Your task to perform on an android device: turn off notifications in google photos Image 0: 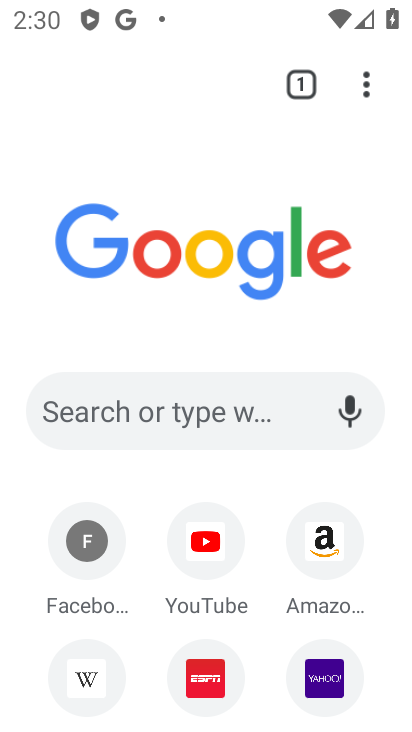
Step 0: press back button
Your task to perform on an android device: turn off notifications in google photos Image 1: 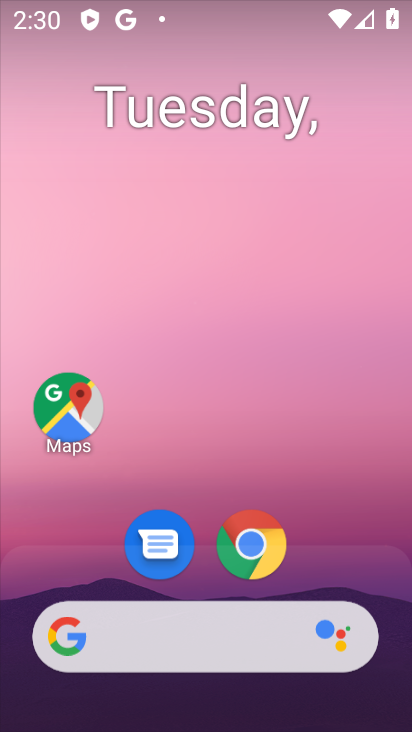
Step 1: drag from (190, 500) to (303, 8)
Your task to perform on an android device: turn off notifications in google photos Image 2: 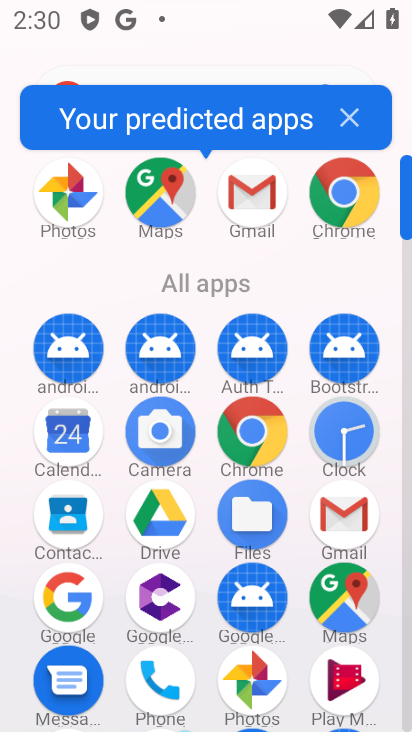
Step 2: click (250, 678)
Your task to perform on an android device: turn off notifications in google photos Image 3: 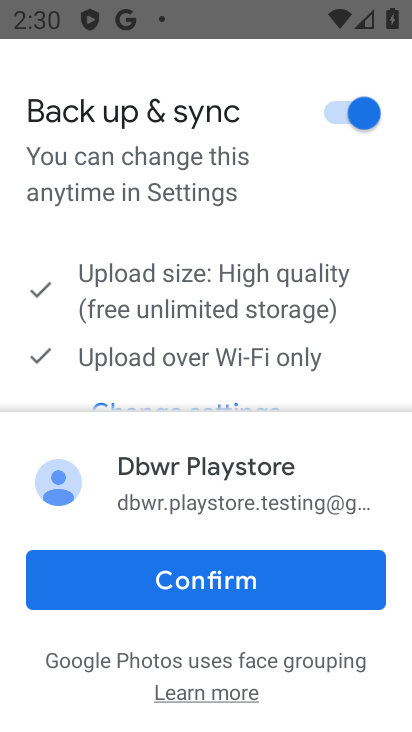
Step 3: click (220, 566)
Your task to perform on an android device: turn off notifications in google photos Image 4: 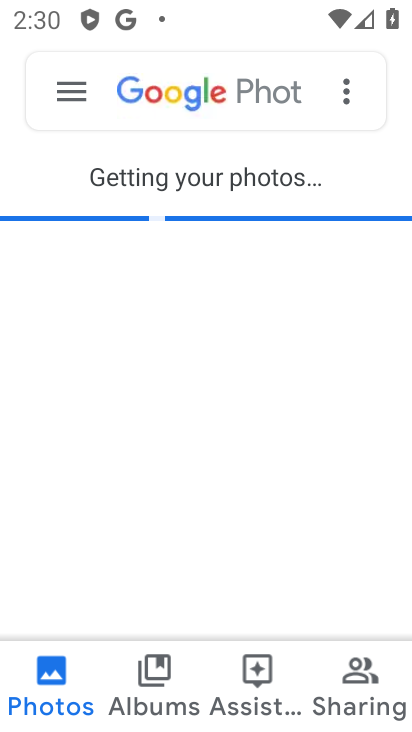
Step 4: click (59, 78)
Your task to perform on an android device: turn off notifications in google photos Image 5: 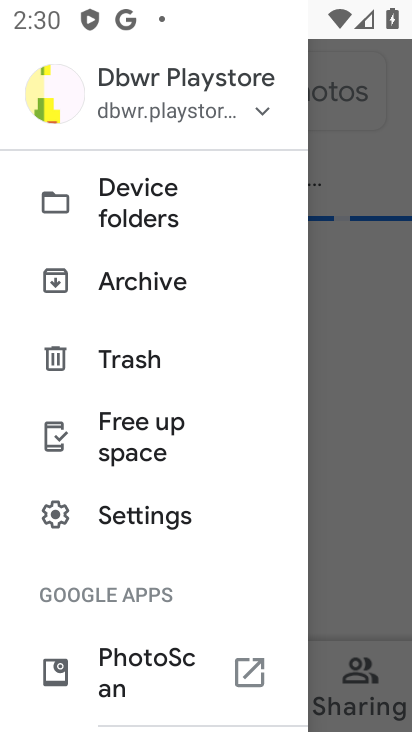
Step 5: click (126, 525)
Your task to perform on an android device: turn off notifications in google photos Image 6: 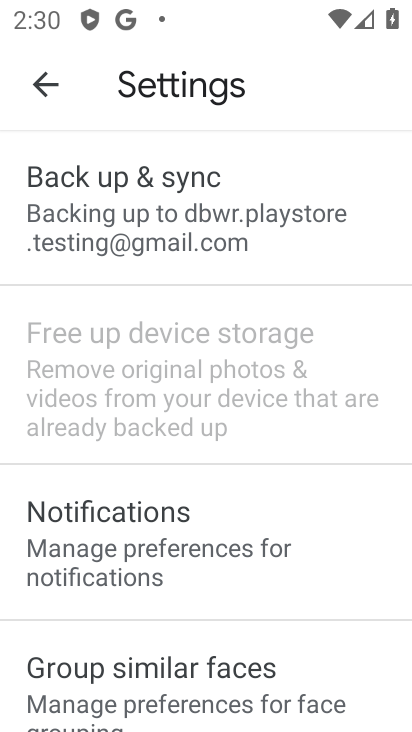
Step 6: click (117, 536)
Your task to perform on an android device: turn off notifications in google photos Image 7: 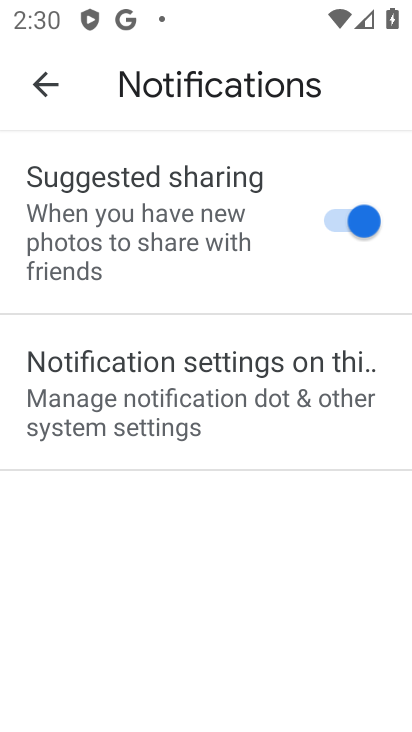
Step 7: click (178, 365)
Your task to perform on an android device: turn off notifications in google photos Image 8: 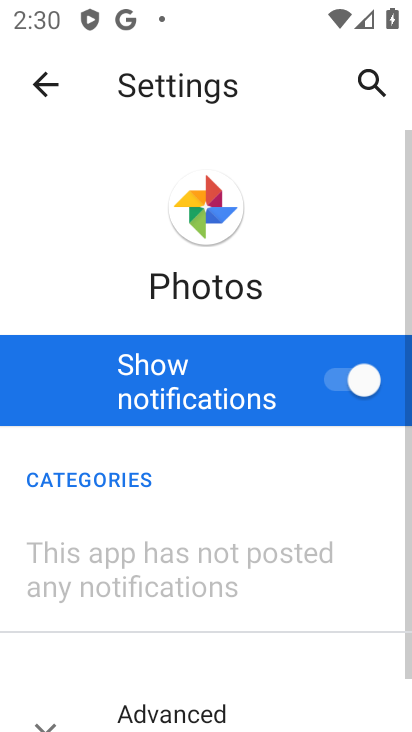
Step 8: click (352, 382)
Your task to perform on an android device: turn off notifications in google photos Image 9: 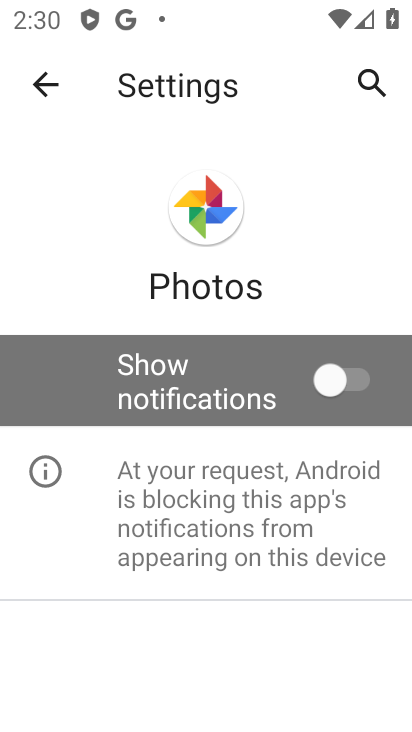
Step 9: task complete